Your task to perform on an android device: Open CNN.com Image 0: 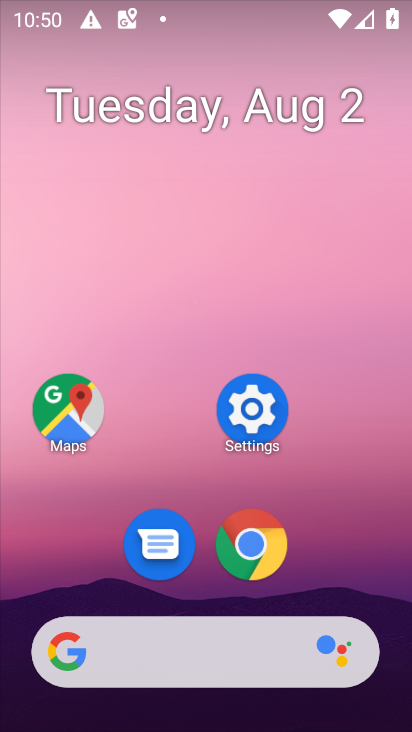
Step 0: click (267, 542)
Your task to perform on an android device: Open CNN.com Image 1: 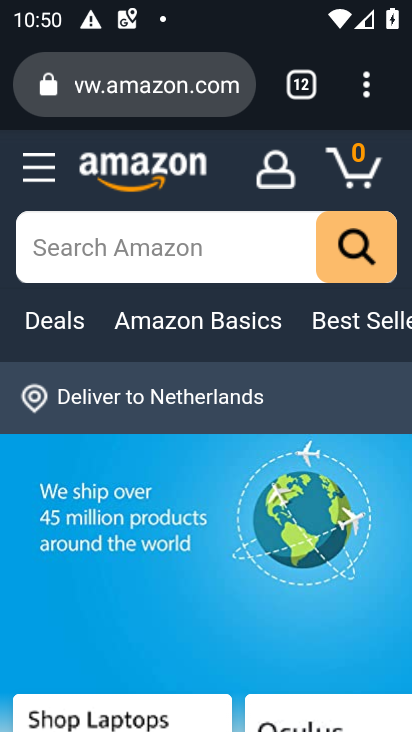
Step 1: drag from (370, 81) to (94, 162)
Your task to perform on an android device: Open CNN.com Image 2: 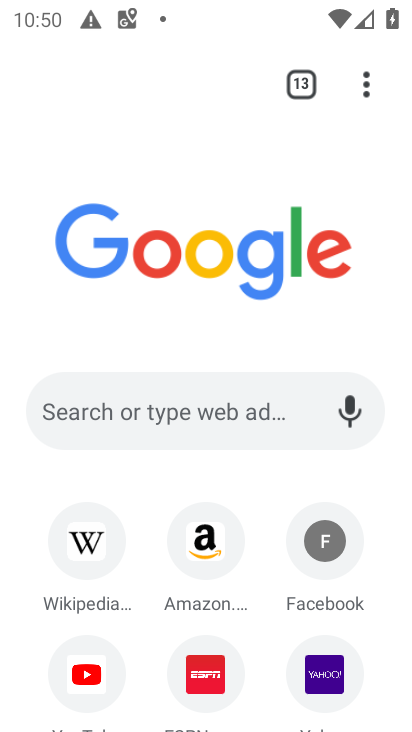
Step 2: drag from (152, 578) to (260, 278)
Your task to perform on an android device: Open CNN.com Image 3: 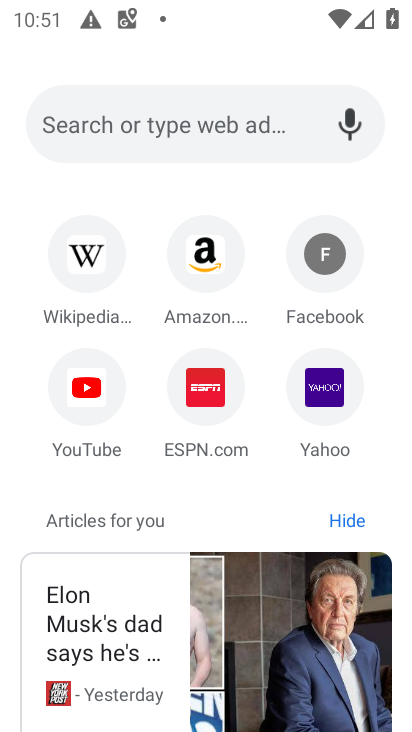
Step 3: click (137, 129)
Your task to perform on an android device: Open CNN.com Image 4: 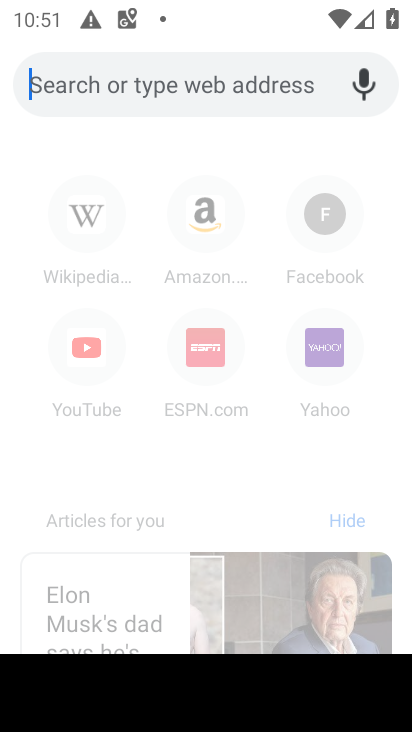
Step 4: type "CNN.com"
Your task to perform on an android device: Open CNN.com Image 5: 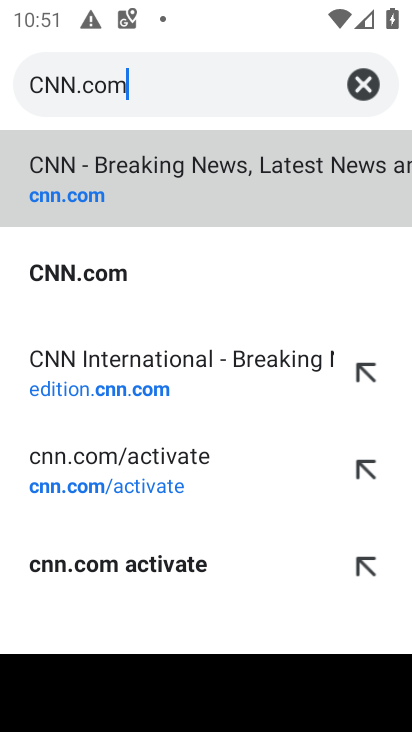
Step 5: click (181, 194)
Your task to perform on an android device: Open CNN.com Image 6: 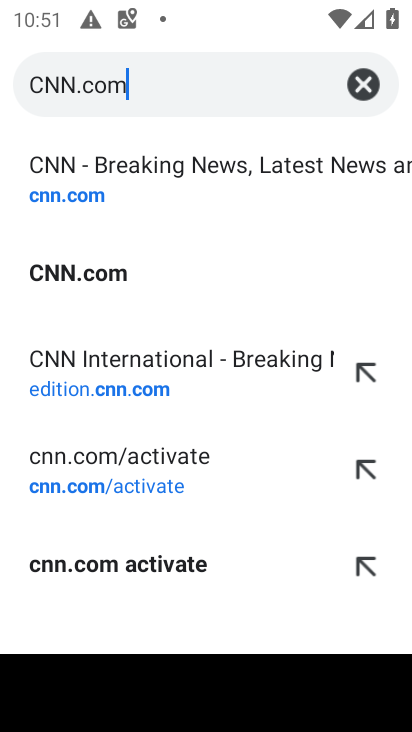
Step 6: click (194, 174)
Your task to perform on an android device: Open CNN.com Image 7: 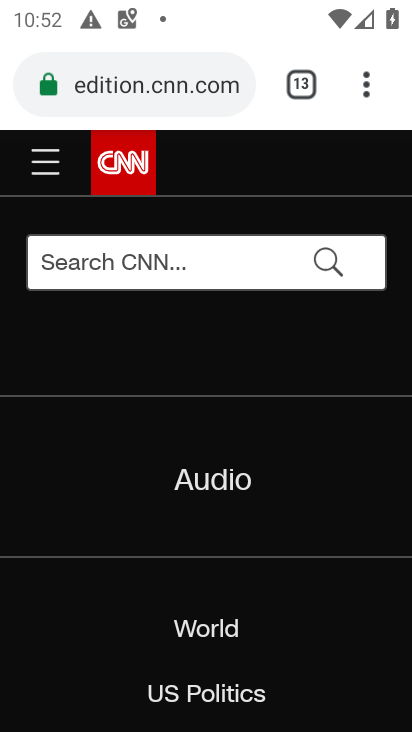
Step 7: task complete